Your task to perform on an android device: Turn on the flashlight Image 0: 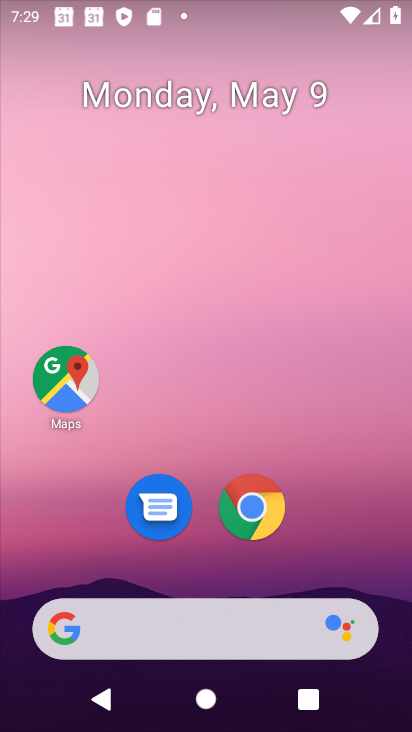
Step 0: drag from (231, 653) to (247, 136)
Your task to perform on an android device: Turn on the flashlight Image 1: 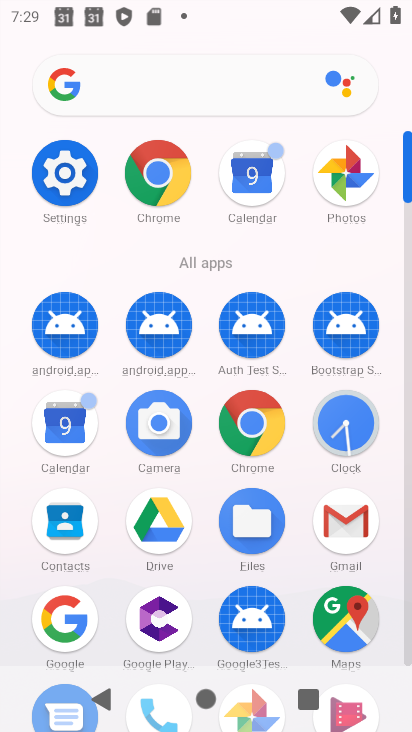
Step 1: click (77, 169)
Your task to perform on an android device: Turn on the flashlight Image 2: 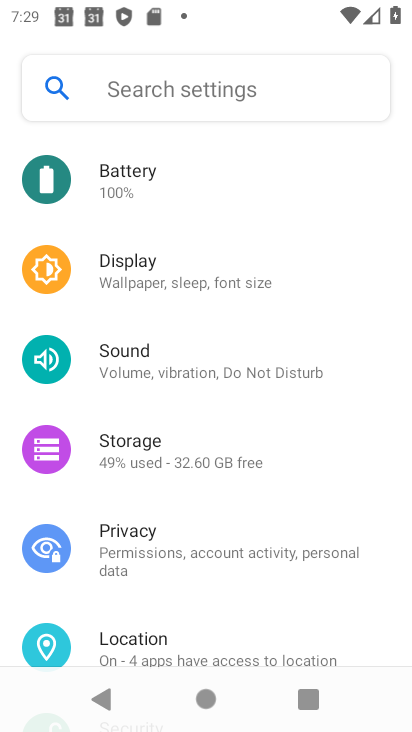
Step 2: click (142, 90)
Your task to perform on an android device: Turn on the flashlight Image 3: 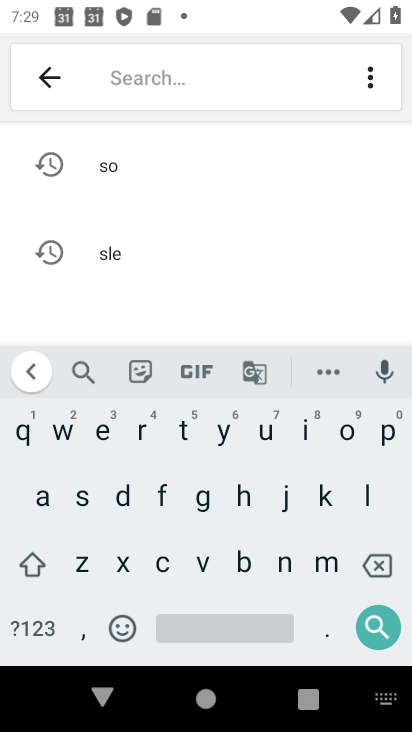
Step 3: click (159, 491)
Your task to perform on an android device: Turn on the flashlight Image 4: 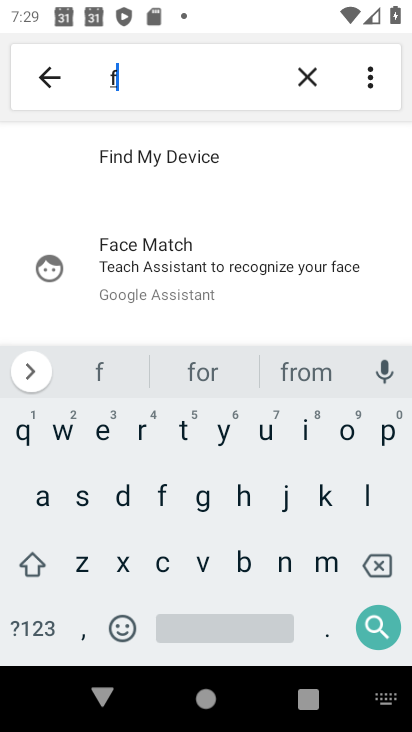
Step 4: click (363, 496)
Your task to perform on an android device: Turn on the flashlight Image 5: 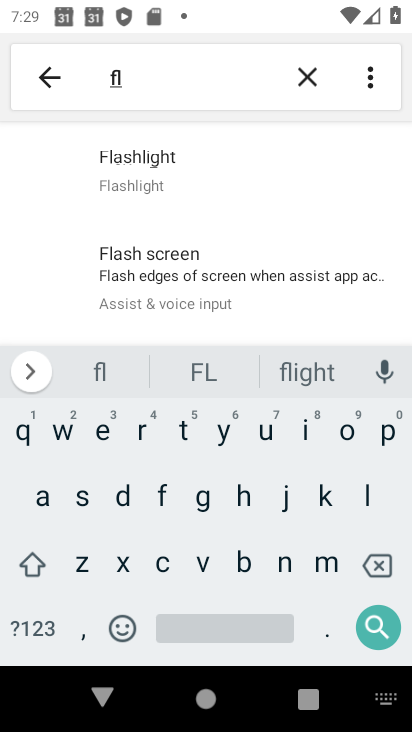
Step 5: click (214, 185)
Your task to perform on an android device: Turn on the flashlight Image 6: 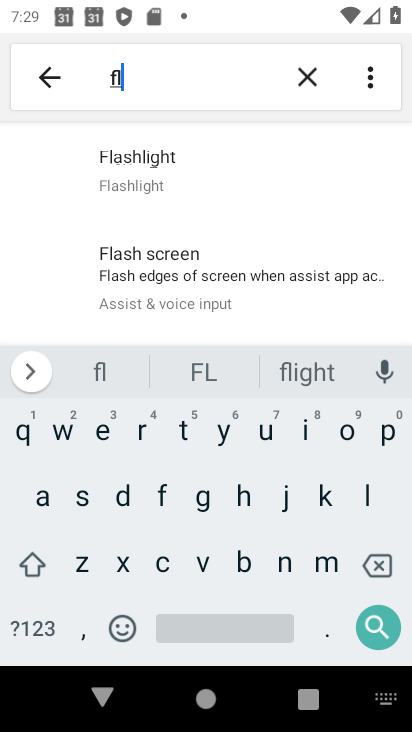
Step 6: click (214, 183)
Your task to perform on an android device: Turn on the flashlight Image 7: 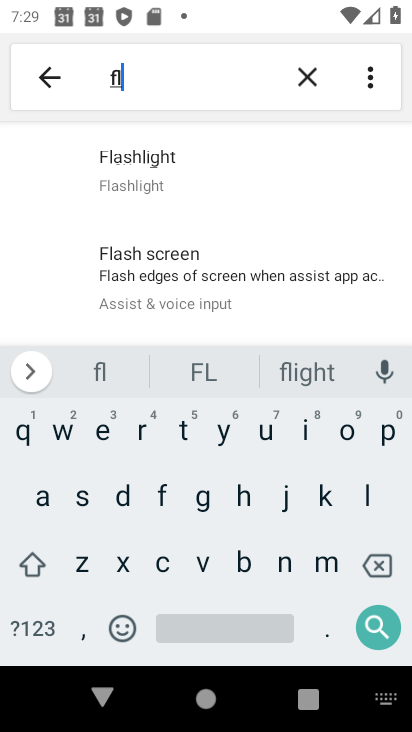
Step 7: task complete